Your task to perform on an android device: Go to Google maps Image 0: 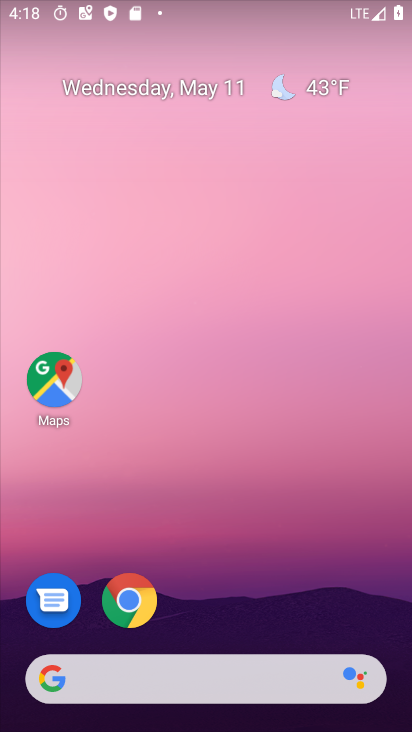
Step 0: click (60, 391)
Your task to perform on an android device: Go to Google maps Image 1: 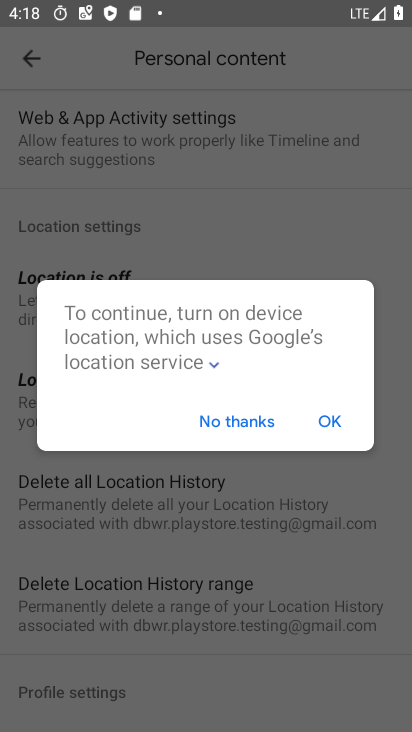
Step 1: click (252, 427)
Your task to perform on an android device: Go to Google maps Image 2: 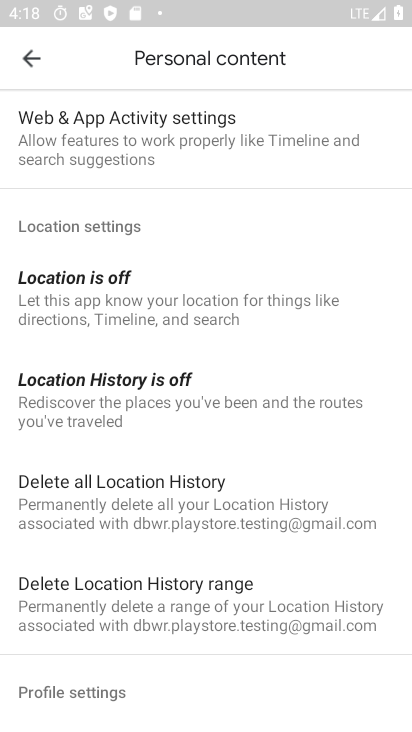
Step 2: click (35, 66)
Your task to perform on an android device: Go to Google maps Image 3: 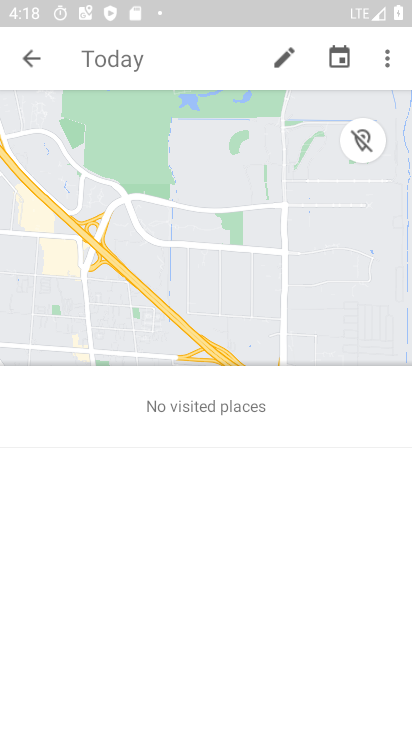
Step 3: task complete